Your task to perform on an android device: empty trash in the gmail app Image 0: 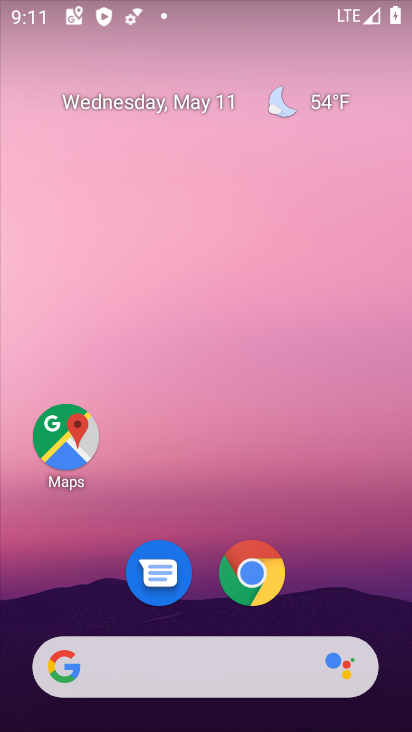
Step 0: drag from (280, 642) to (287, 59)
Your task to perform on an android device: empty trash in the gmail app Image 1: 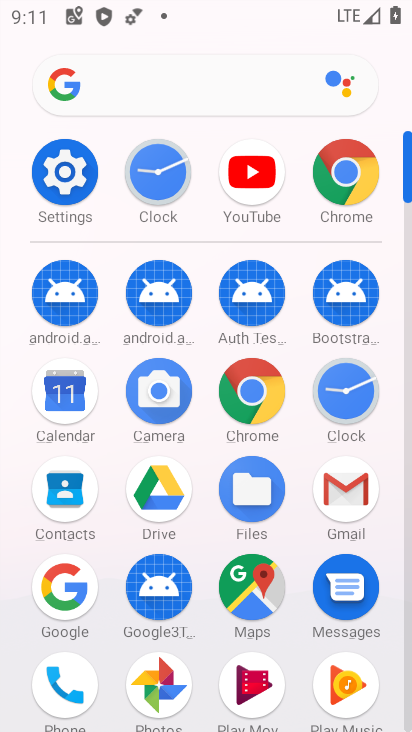
Step 1: click (359, 477)
Your task to perform on an android device: empty trash in the gmail app Image 2: 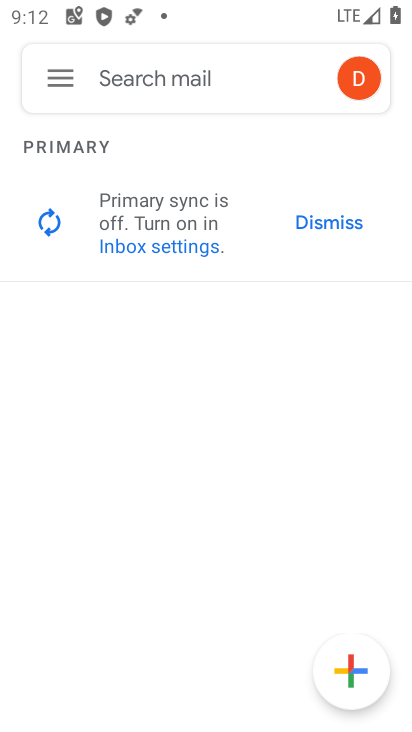
Step 2: click (54, 78)
Your task to perform on an android device: empty trash in the gmail app Image 3: 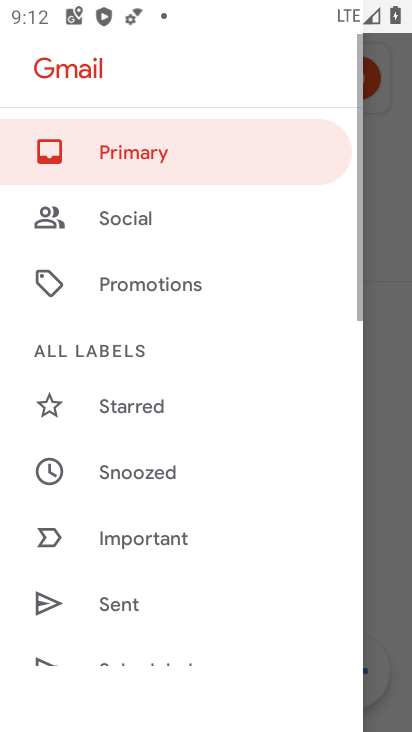
Step 3: drag from (194, 623) to (230, 88)
Your task to perform on an android device: empty trash in the gmail app Image 4: 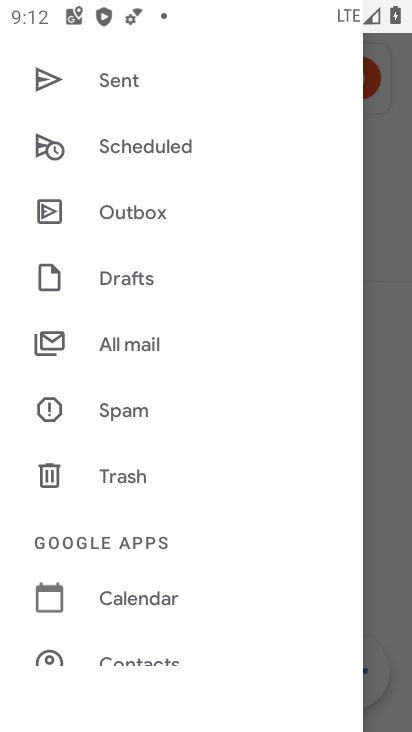
Step 4: drag from (160, 615) to (167, 528)
Your task to perform on an android device: empty trash in the gmail app Image 5: 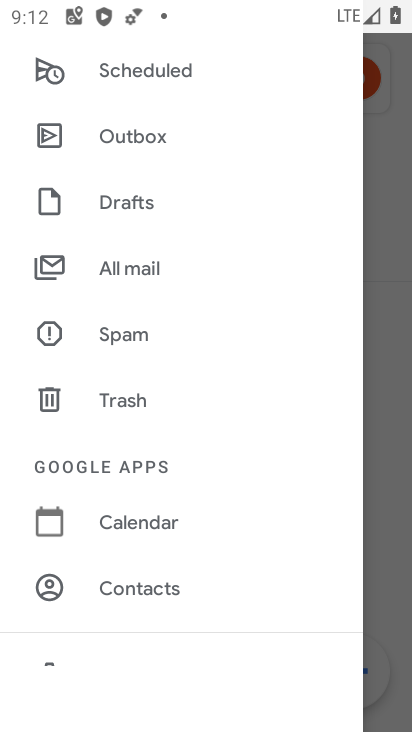
Step 5: click (144, 400)
Your task to perform on an android device: empty trash in the gmail app Image 6: 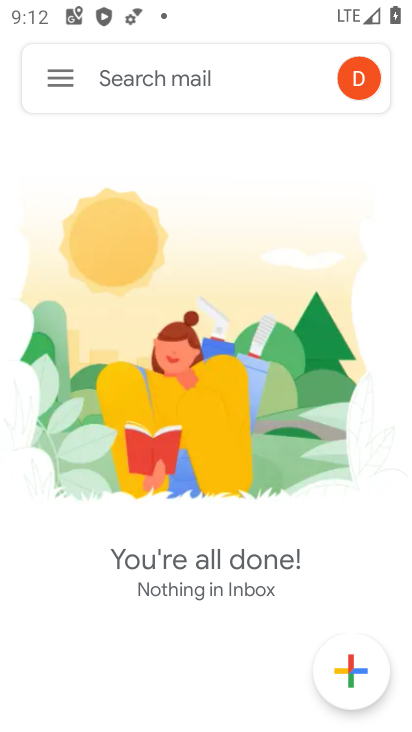
Step 6: task complete